Your task to perform on an android device: delete location history Image 0: 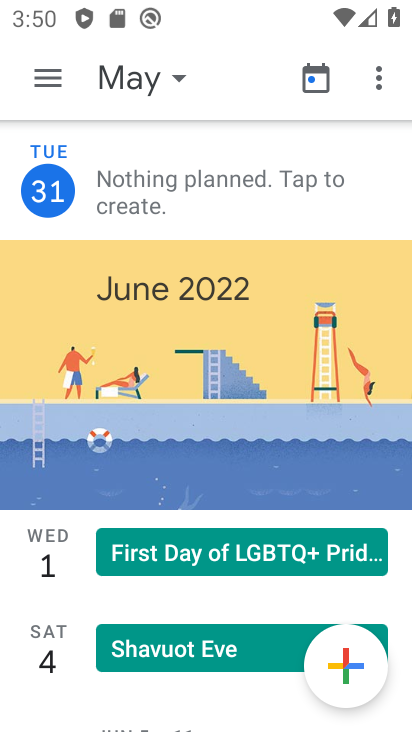
Step 0: press home button
Your task to perform on an android device: delete location history Image 1: 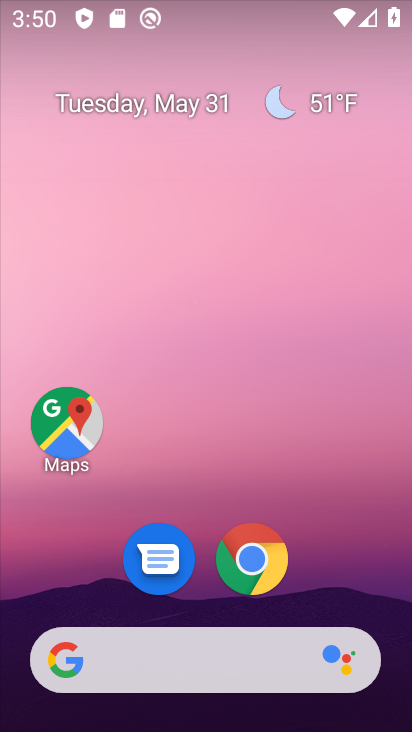
Step 1: click (54, 404)
Your task to perform on an android device: delete location history Image 2: 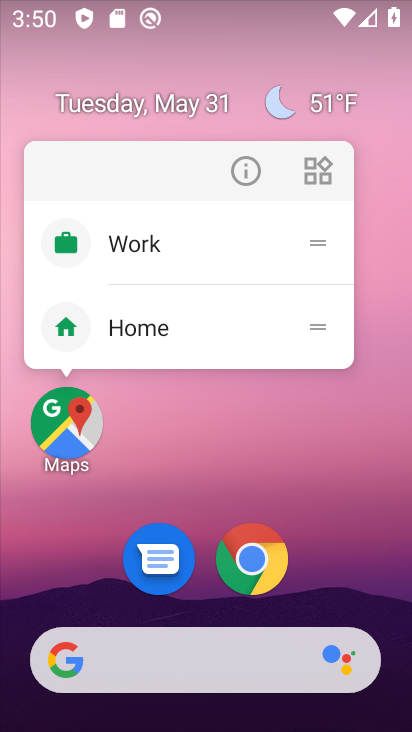
Step 2: click (56, 404)
Your task to perform on an android device: delete location history Image 3: 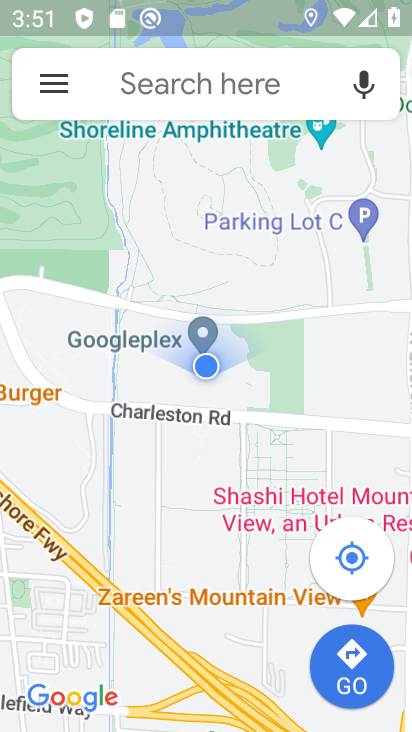
Step 3: click (57, 80)
Your task to perform on an android device: delete location history Image 4: 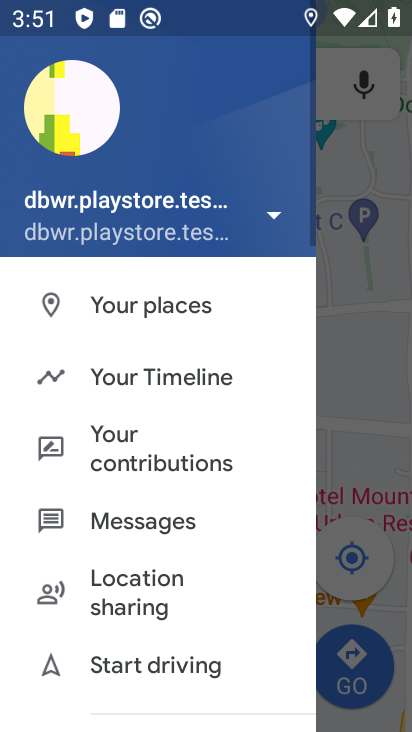
Step 4: click (145, 371)
Your task to perform on an android device: delete location history Image 5: 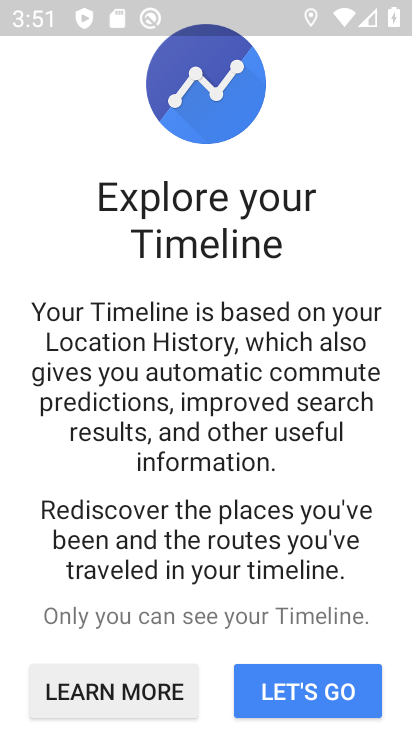
Step 5: drag from (229, 620) to (250, 160)
Your task to perform on an android device: delete location history Image 6: 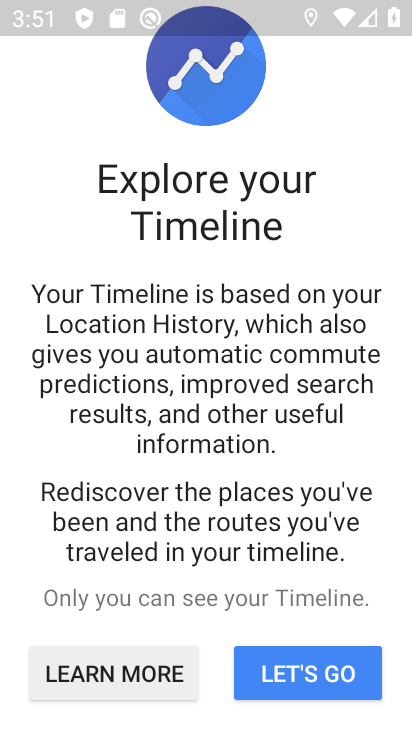
Step 6: click (305, 665)
Your task to perform on an android device: delete location history Image 7: 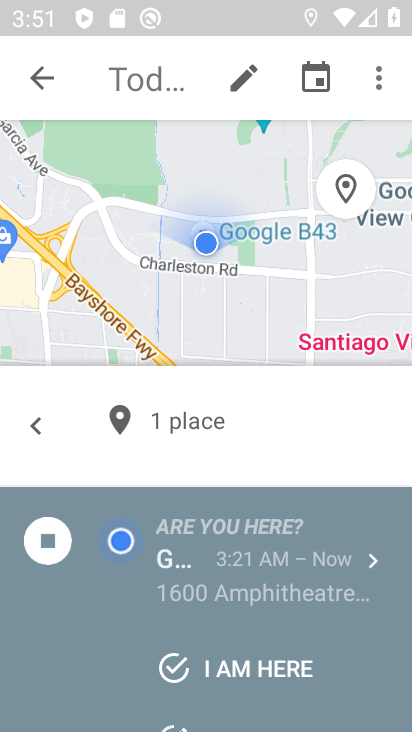
Step 7: click (372, 76)
Your task to perform on an android device: delete location history Image 8: 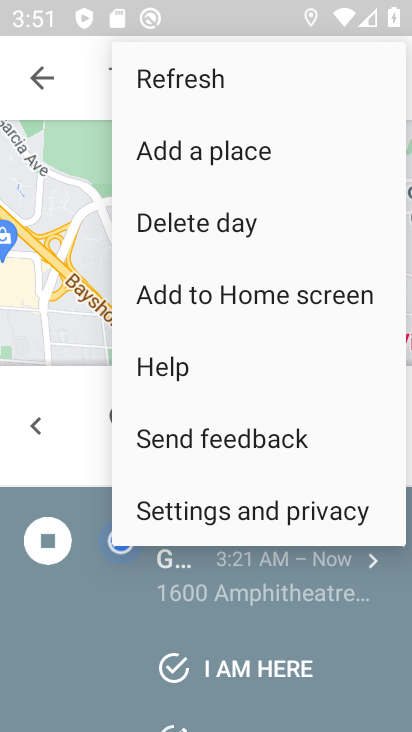
Step 8: click (266, 502)
Your task to perform on an android device: delete location history Image 9: 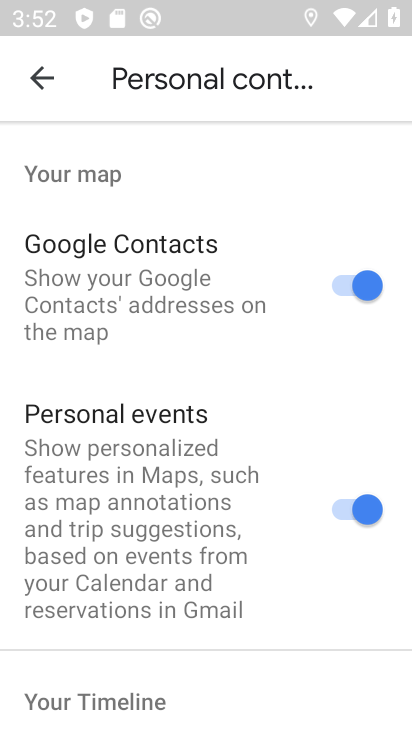
Step 9: drag from (218, 523) to (263, 27)
Your task to perform on an android device: delete location history Image 10: 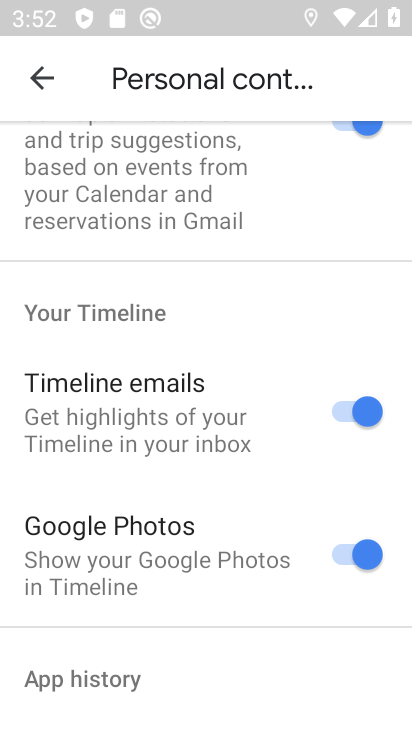
Step 10: drag from (162, 548) to (204, 1)
Your task to perform on an android device: delete location history Image 11: 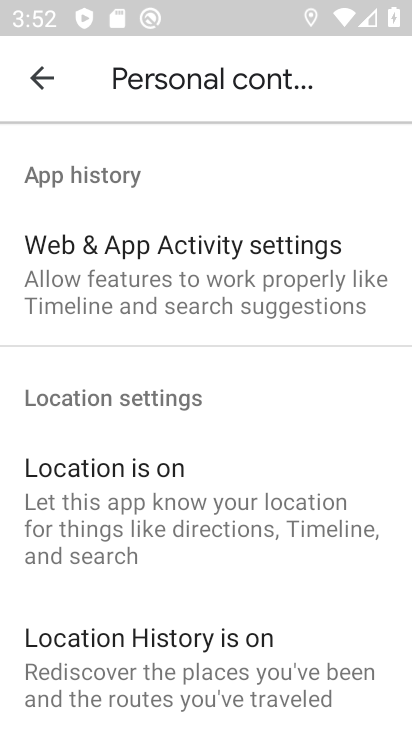
Step 11: drag from (120, 508) to (143, 16)
Your task to perform on an android device: delete location history Image 12: 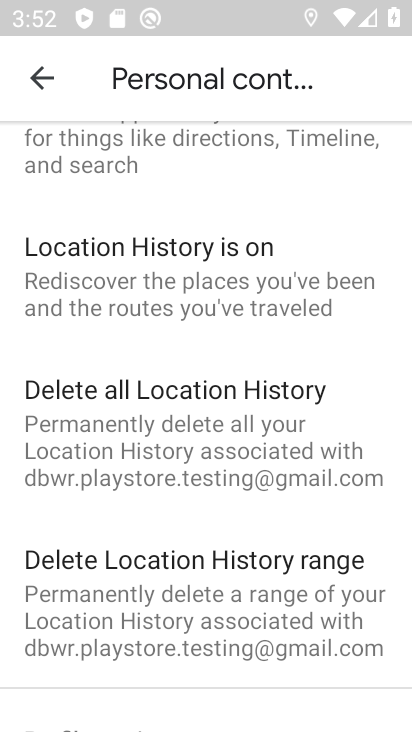
Step 12: click (186, 434)
Your task to perform on an android device: delete location history Image 13: 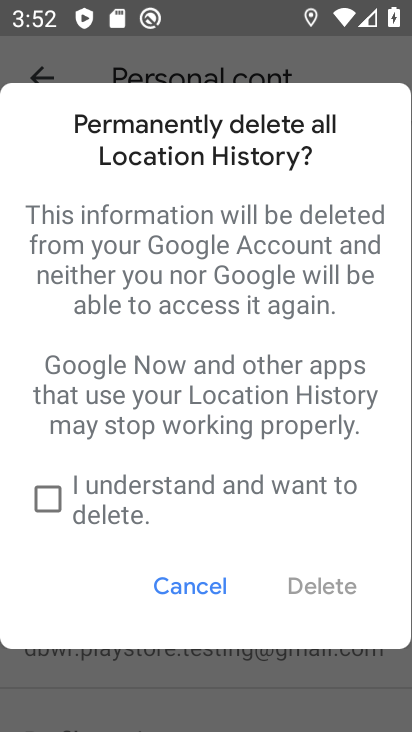
Step 13: click (76, 487)
Your task to perform on an android device: delete location history Image 14: 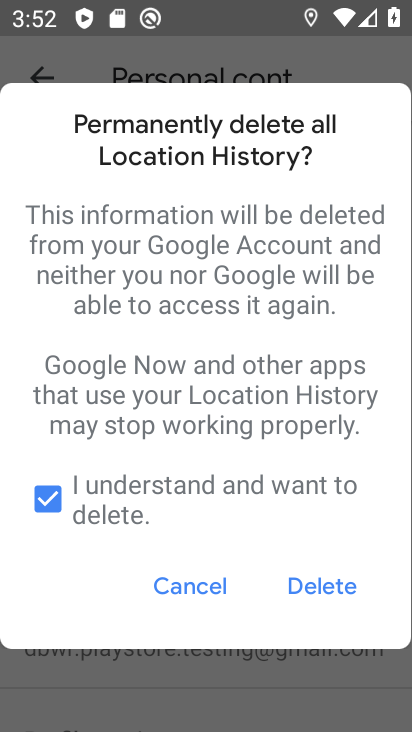
Step 14: click (332, 578)
Your task to perform on an android device: delete location history Image 15: 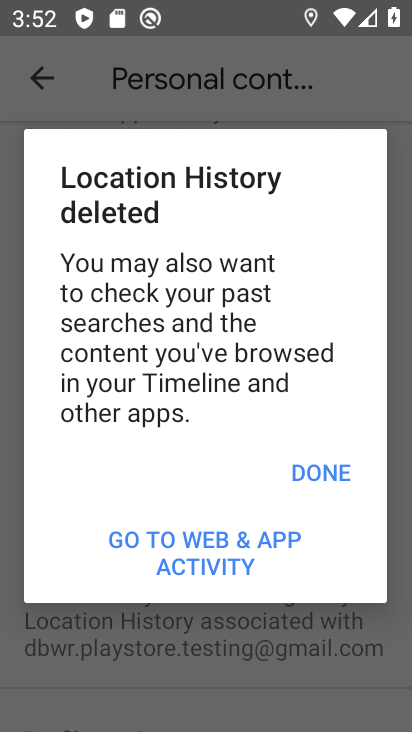
Step 15: task complete